Your task to perform on an android device: move a message to another label in the gmail app Image 0: 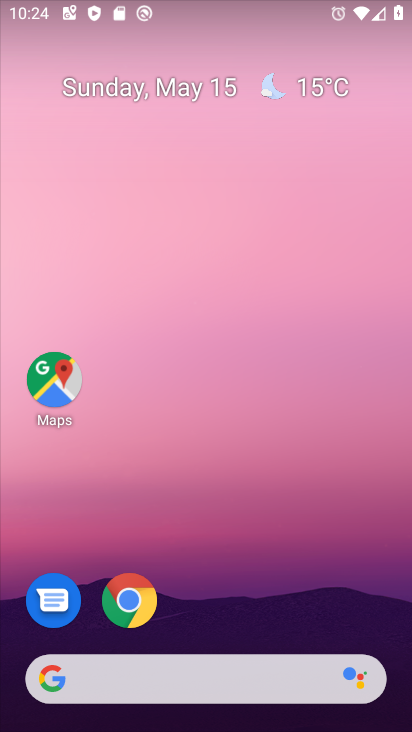
Step 0: drag from (367, 616) to (389, 37)
Your task to perform on an android device: move a message to another label in the gmail app Image 1: 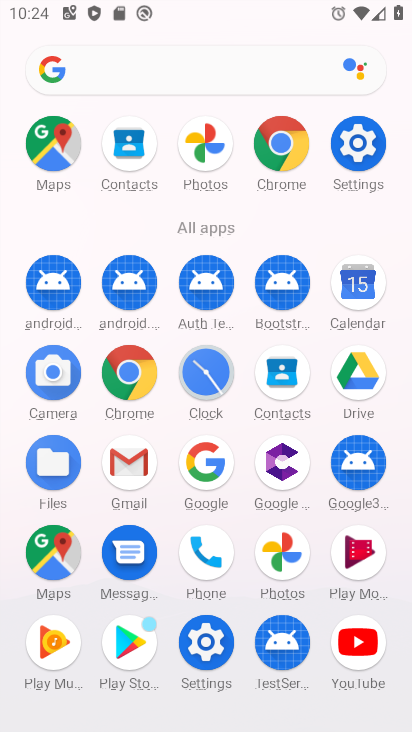
Step 1: click (134, 466)
Your task to perform on an android device: move a message to another label in the gmail app Image 2: 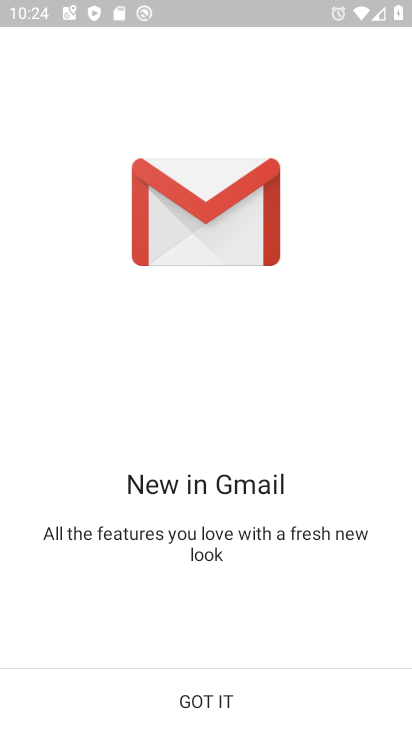
Step 2: click (261, 714)
Your task to perform on an android device: move a message to another label in the gmail app Image 3: 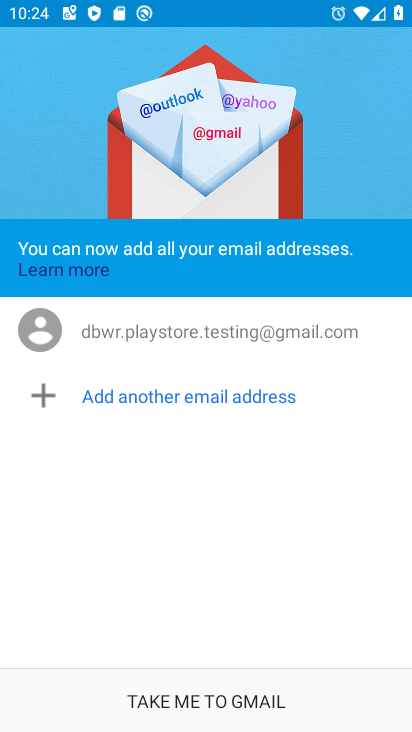
Step 3: click (261, 714)
Your task to perform on an android device: move a message to another label in the gmail app Image 4: 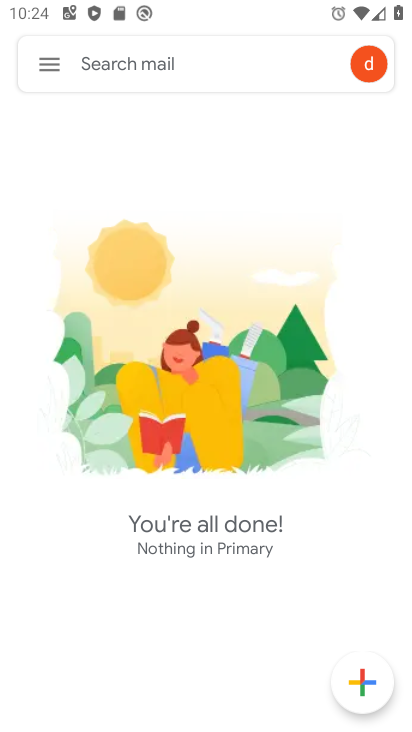
Step 4: task complete